Your task to perform on an android device: Check the news Image 0: 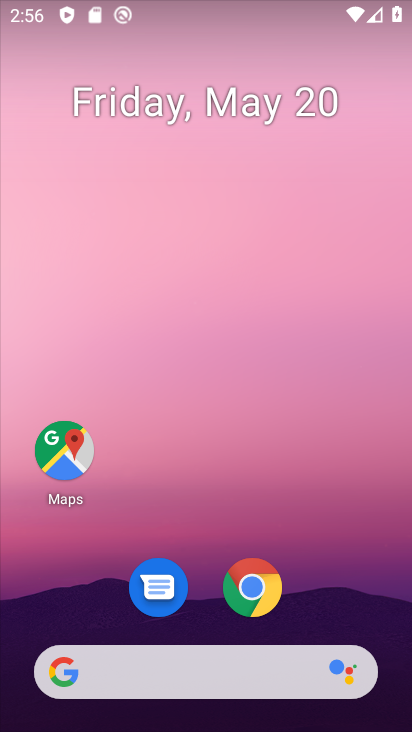
Step 0: click (257, 574)
Your task to perform on an android device: Check the news Image 1: 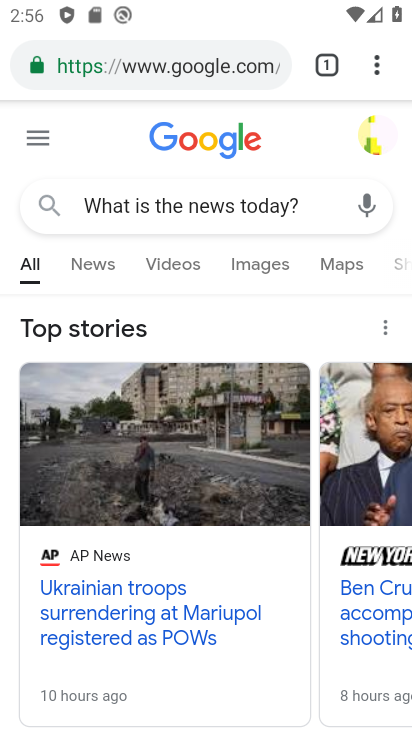
Step 1: task complete